Your task to perform on an android device: Open calendar and show me the fourth week of next month Image 0: 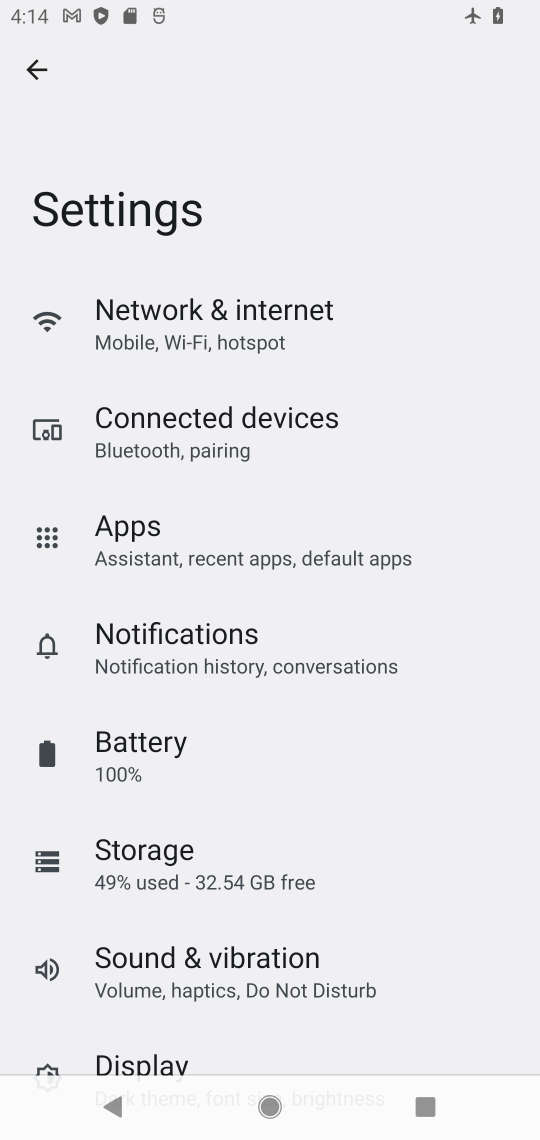
Step 0: press home button
Your task to perform on an android device: Open calendar and show me the fourth week of next month Image 1: 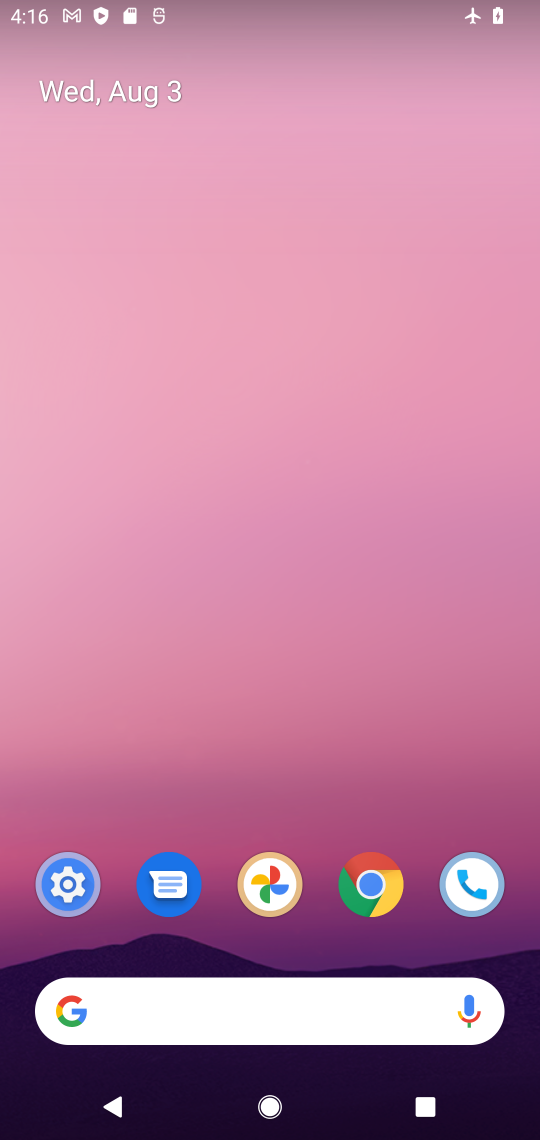
Step 1: drag from (205, 917) to (313, 66)
Your task to perform on an android device: Open calendar and show me the fourth week of next month Image 2: 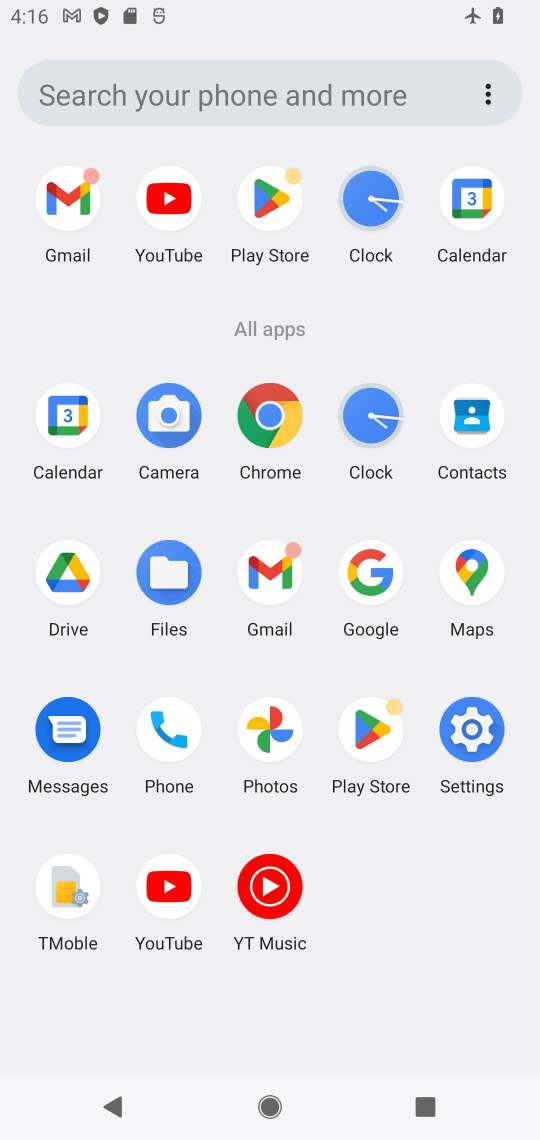
Step 2: click (451, 207)
Your task to perform on an android device: Open calendar and show me the fourth week of next month Image 3: 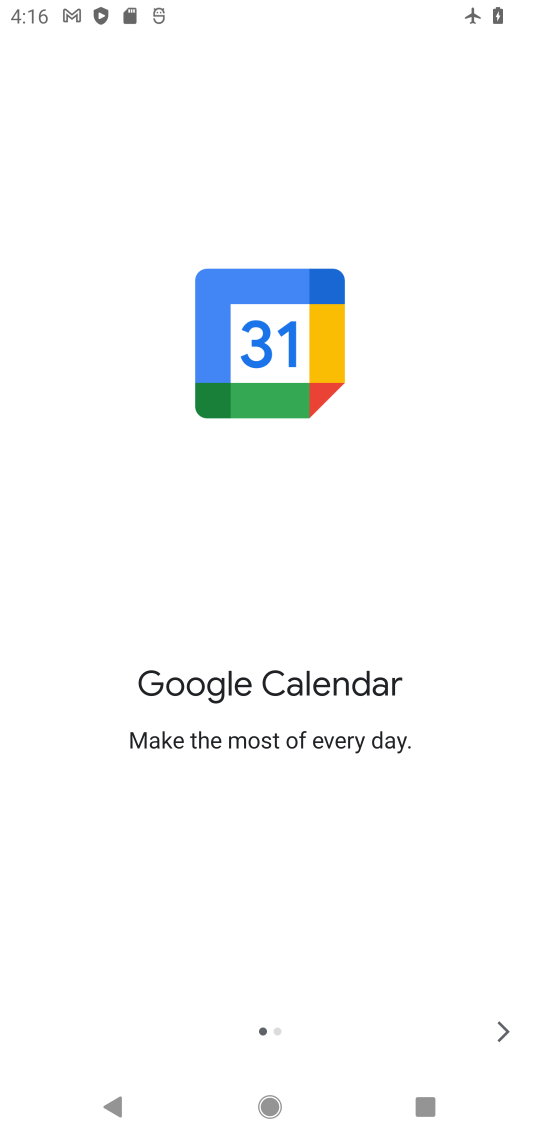
Step 3: click (507, 1005)
Your task to perform on an android device: Open calendar and show me the fourth week of next month Image 4: 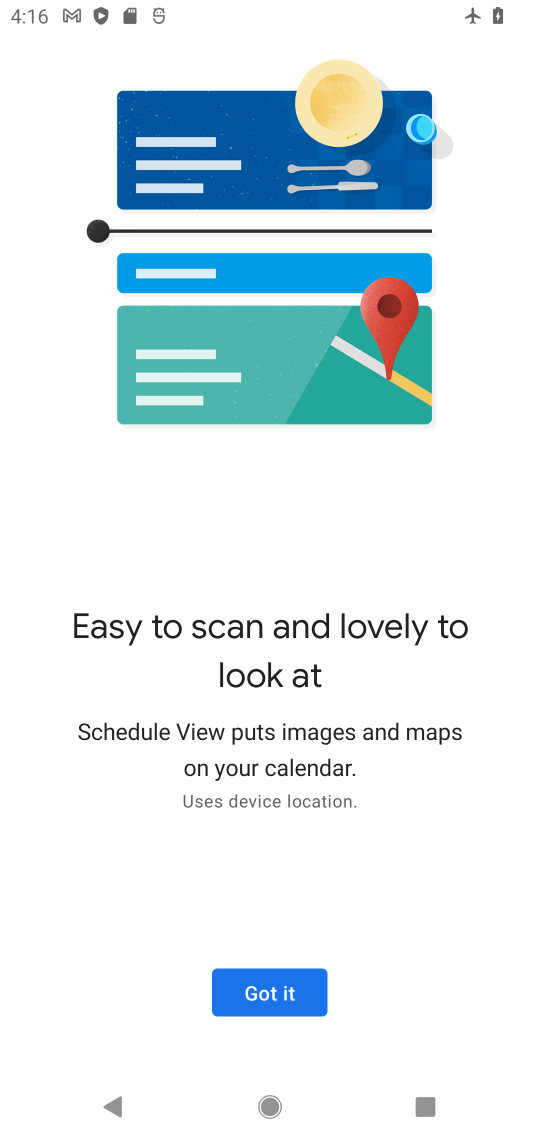
Step 4: click (244, 988)
Your task to perform on an android device: Open calendar and show me the fourth week of next month Image 5: 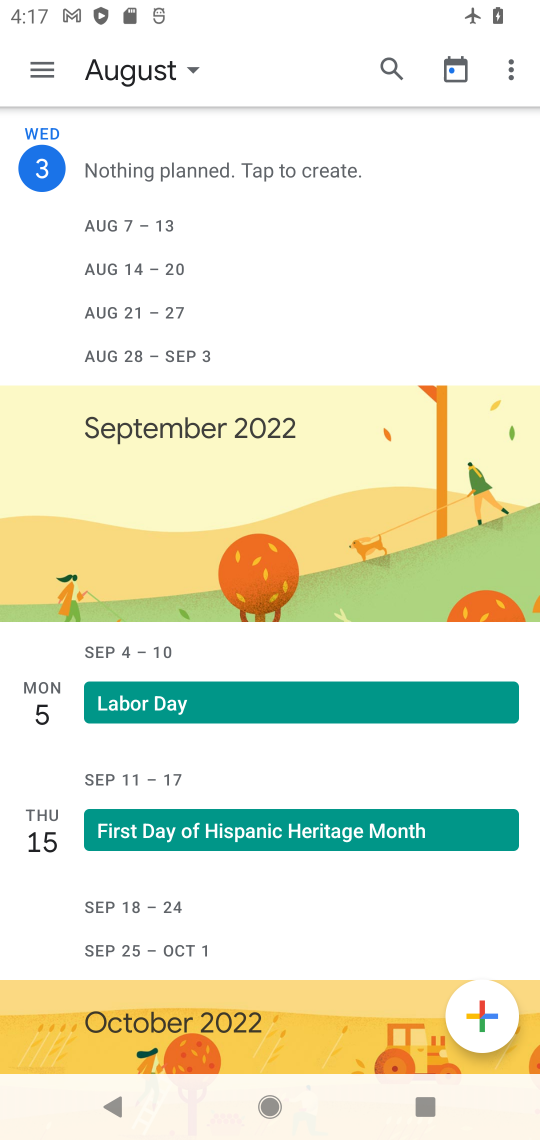
Step 5: click (160, 63)
Your task to perform on an android device: Open calendar and show me the fourth week of next month Image 6: 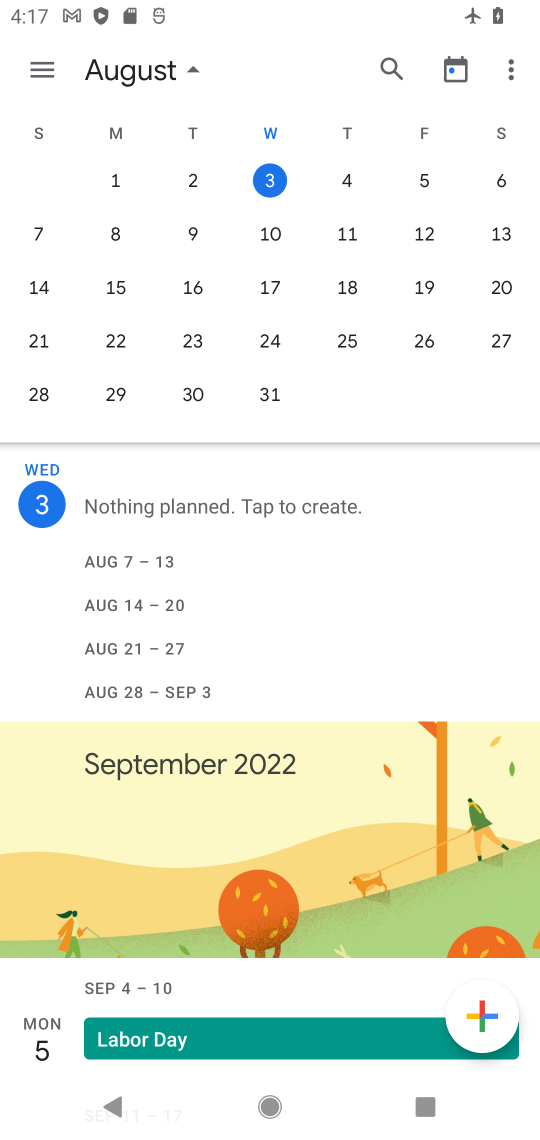
Step 6: drag from (263, 263) to (19, 134)
Your task to perform on an android device: Open calendar and show me the fourth week of next month Image 7: 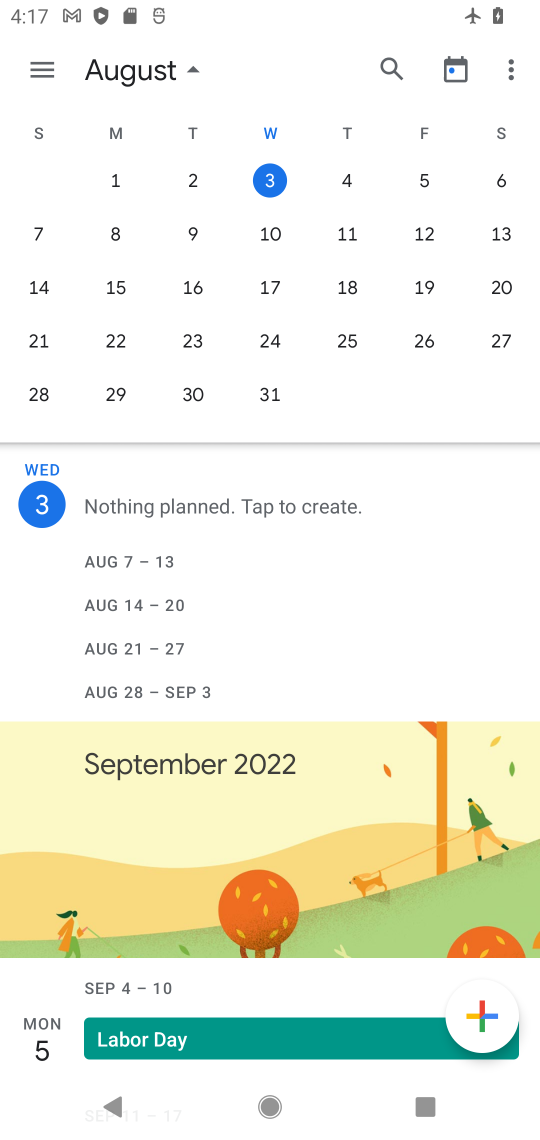
Step 7: click (48, 396)
Your task to perform on an android device: Open calendar and show me the fourth week of next month Image 8: 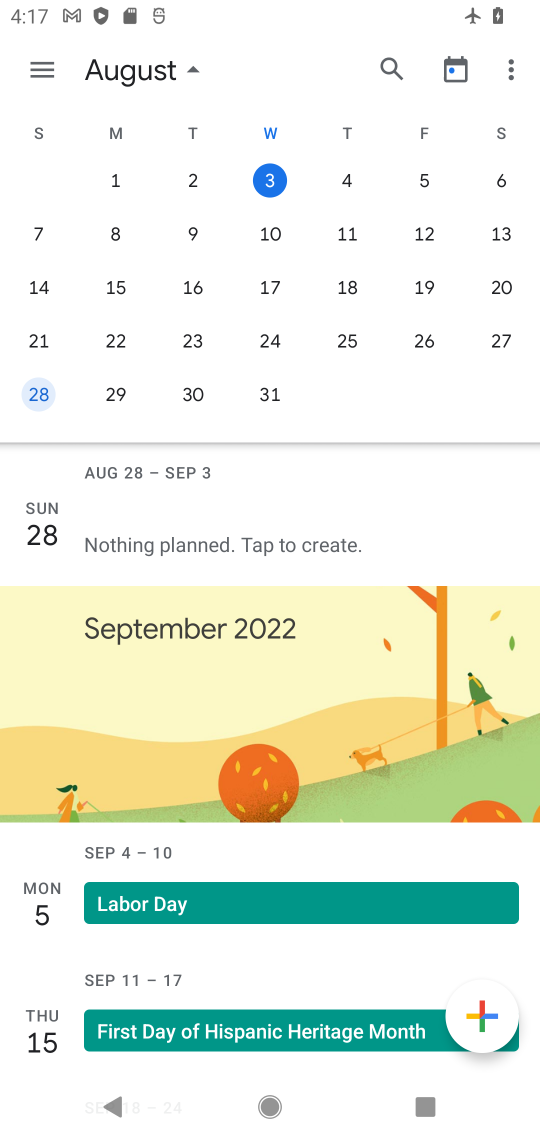
Step 8: task complete